Your task to perform on an android device: Clear all items from cart on amazon.com. Search for bose soundsport free on amazon.com, select the first entry, add it to the cart, then select checkout. Image 0: 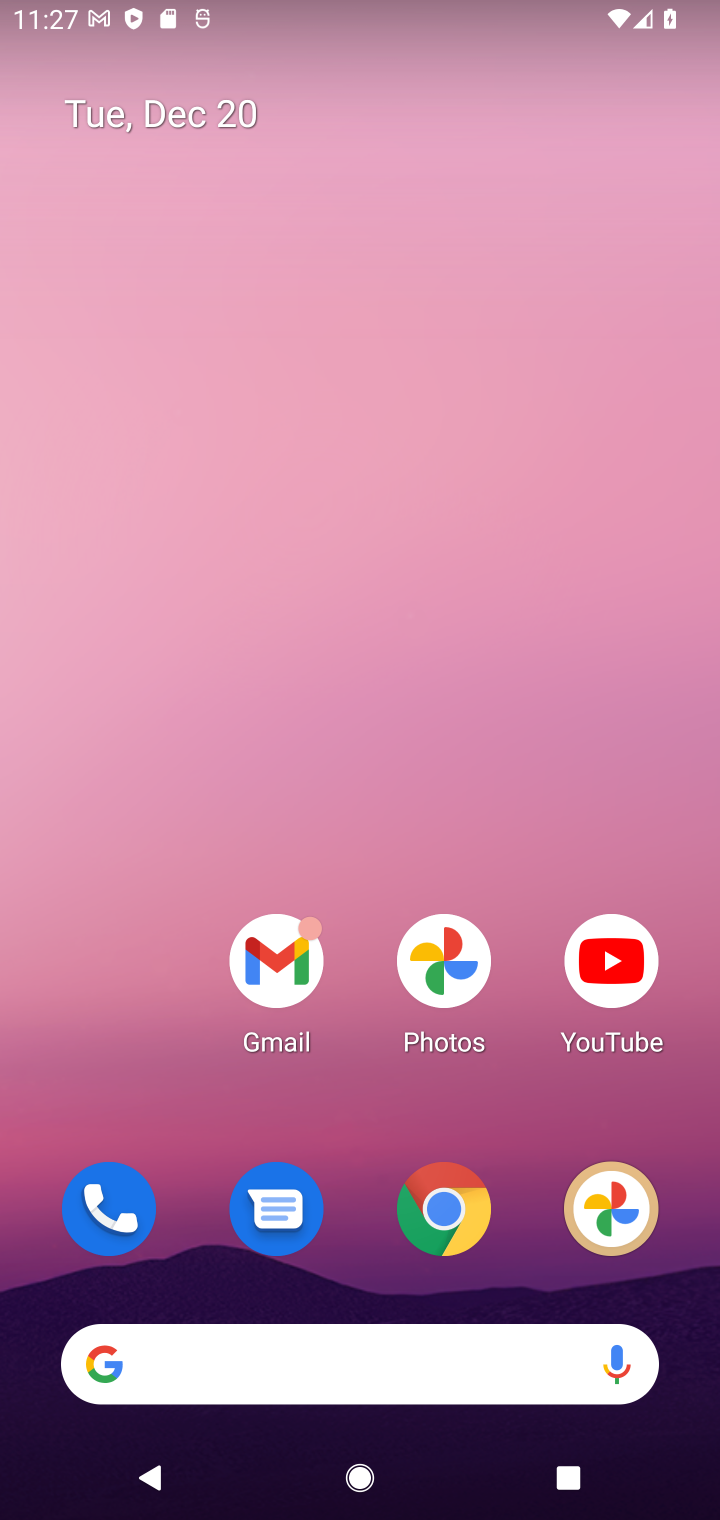
Step 0: click (439, 1201)
Your task to perform on an android device: Clear all items from cart on amazon.com. Search for bose soundsport free on amazon.com, select the first entry, add it to the cart, then select checkout. Image 1: 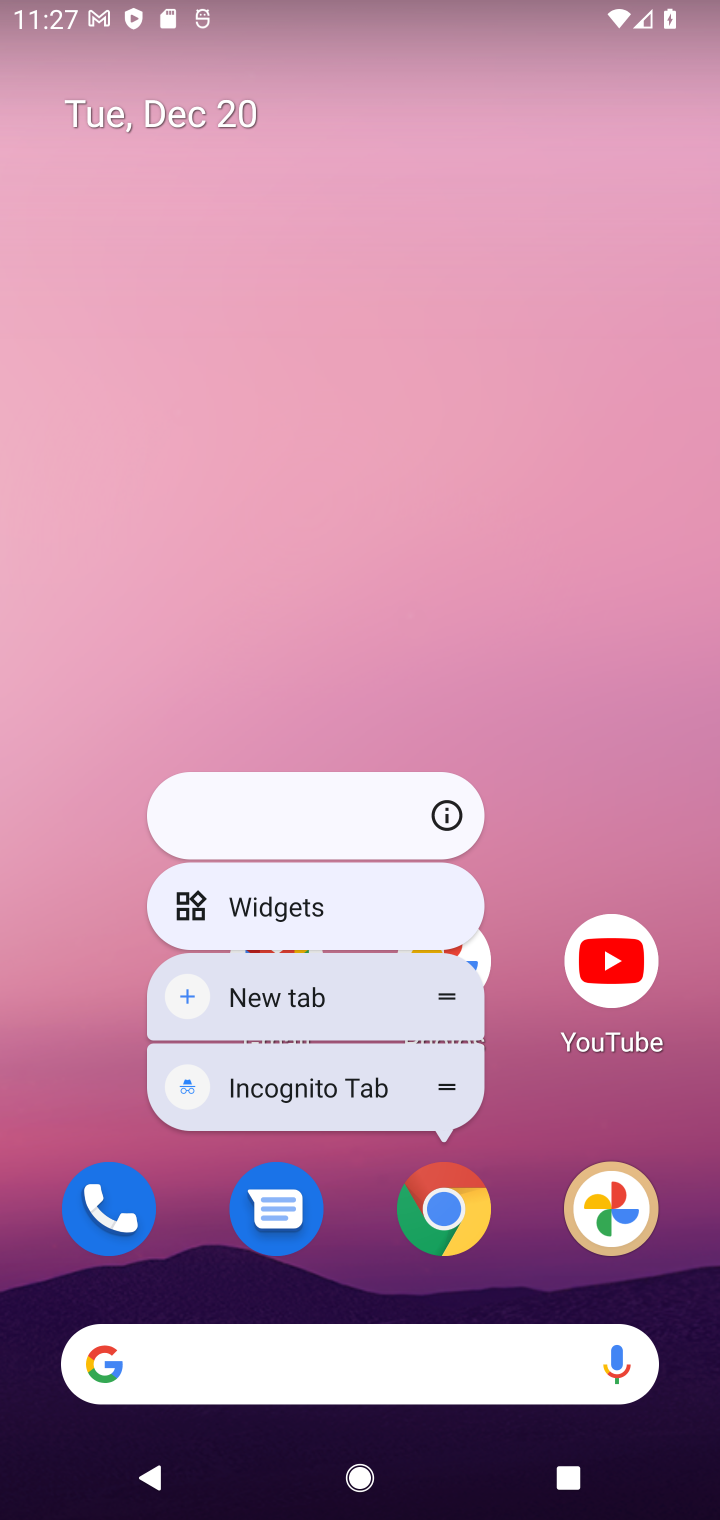
Step 1: click (456, 1226)
Your task to perform on an android device: Clear all items from cart on amazon.com. Search for bose soundsport free on amazon.com, select the first entry, add it to the cart, then select checkout. Image 2: 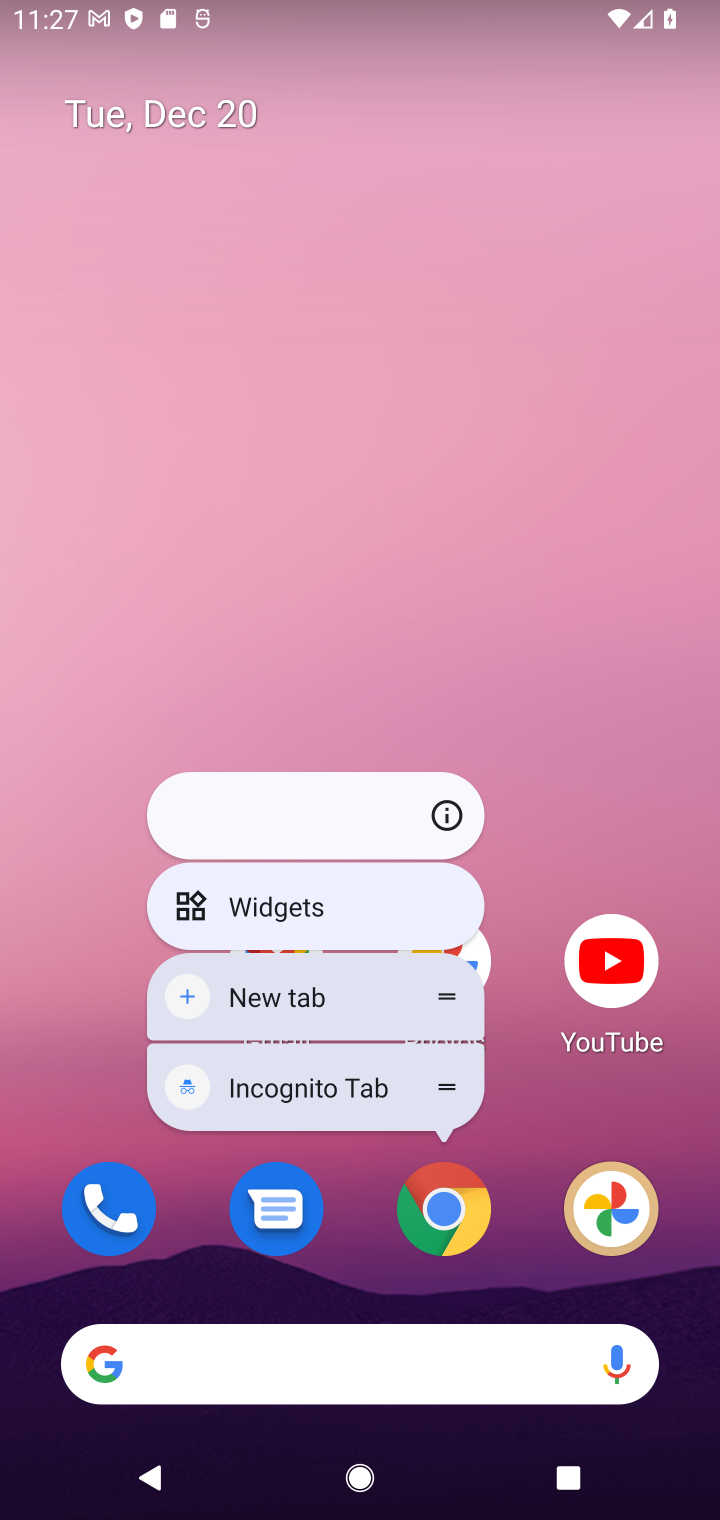
Step 2: click (456, 1226)
Your task to perform on an android device: Clear all items from cart on amazon.com. Search for bose soundsport free on amazon.com, select the first entry, add it to the cart, then select checkout. Image 3: 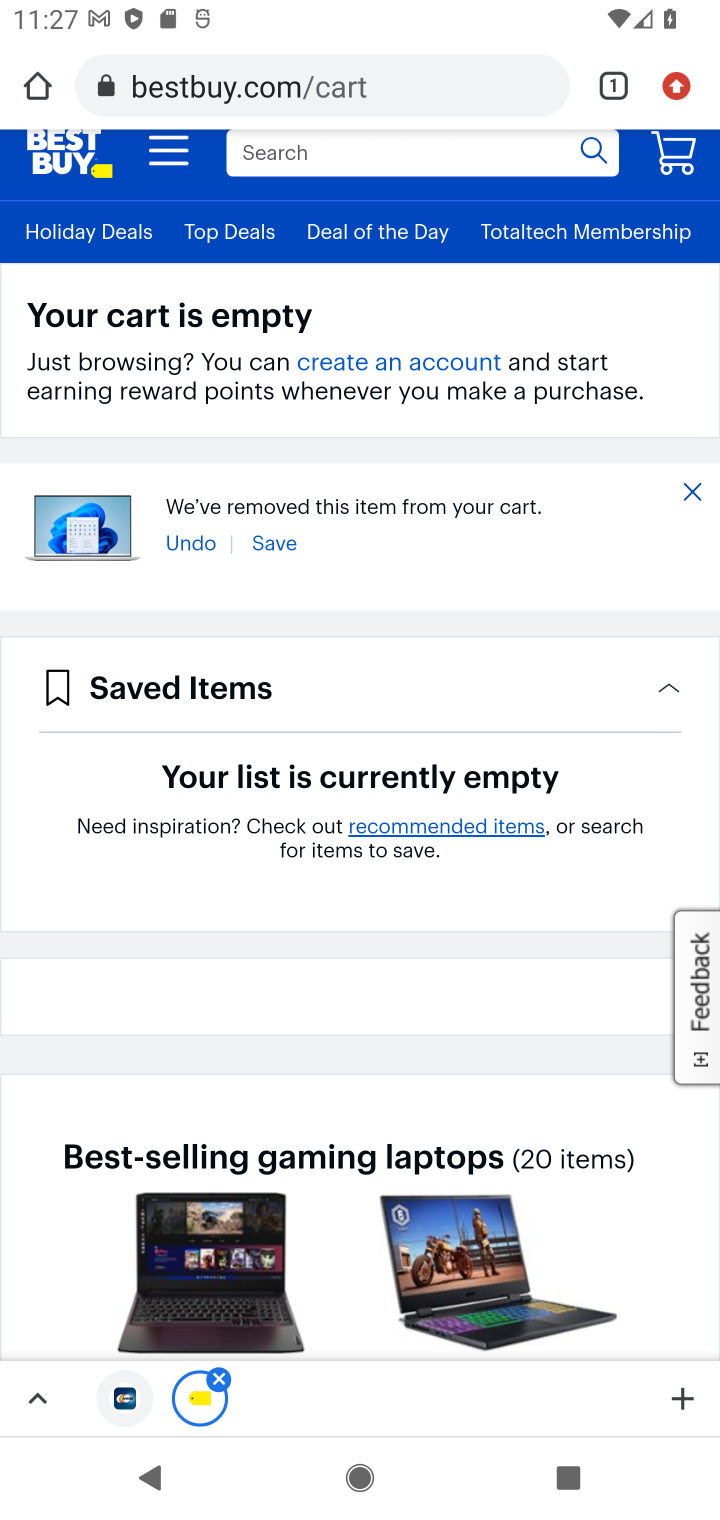
Step 3: click (242, 82)
Your task to perform on an android device: Clear all items from cart on amazon.com. Search for bose soundsport free on amazon.com, select the first entry, add it to the cart, then select checkout. Image 4: 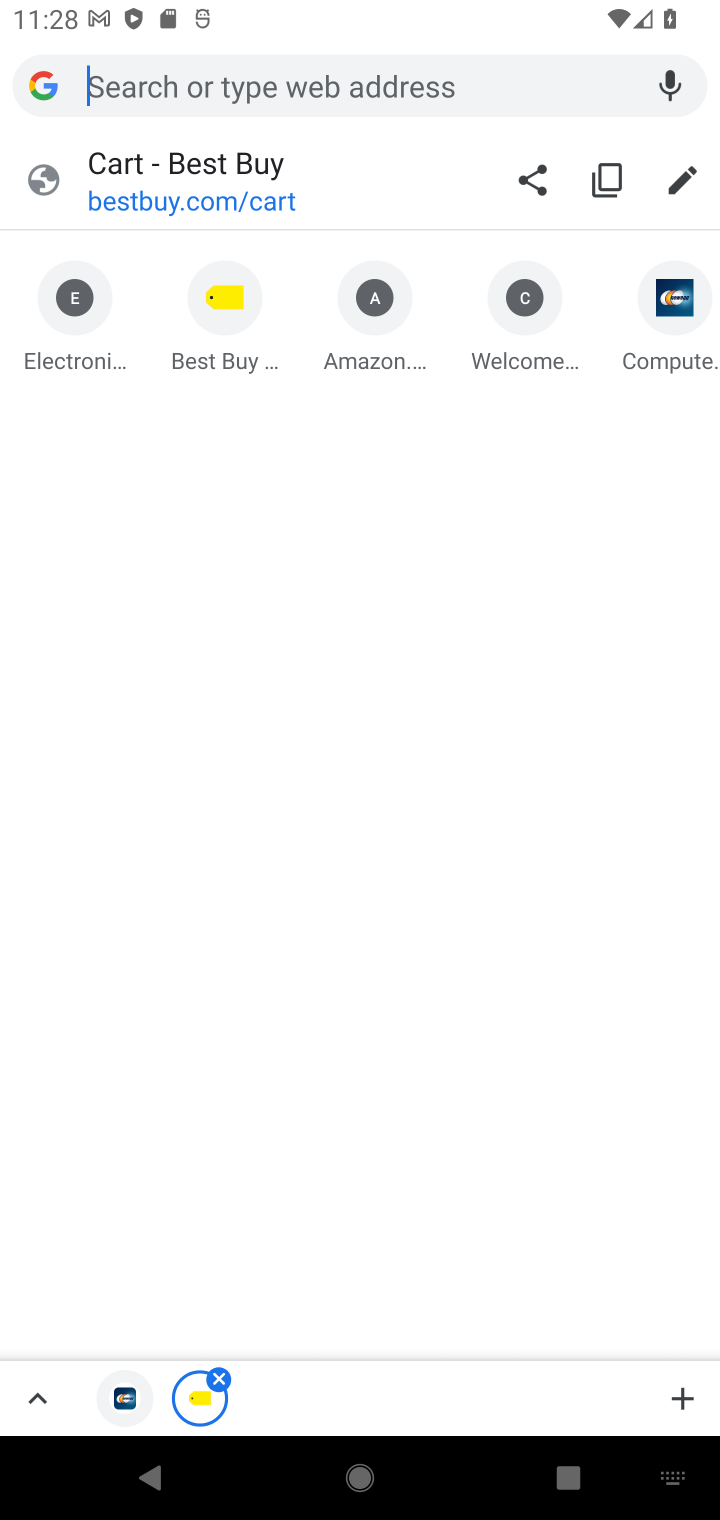
Step 4: click (367, 355)
Your task to perform on an android device: Clear all items from cart on amazon.com. Search for bose soundsport free on amazon.com, select the first entry, add it to the cart, then select checkout. Image 5: 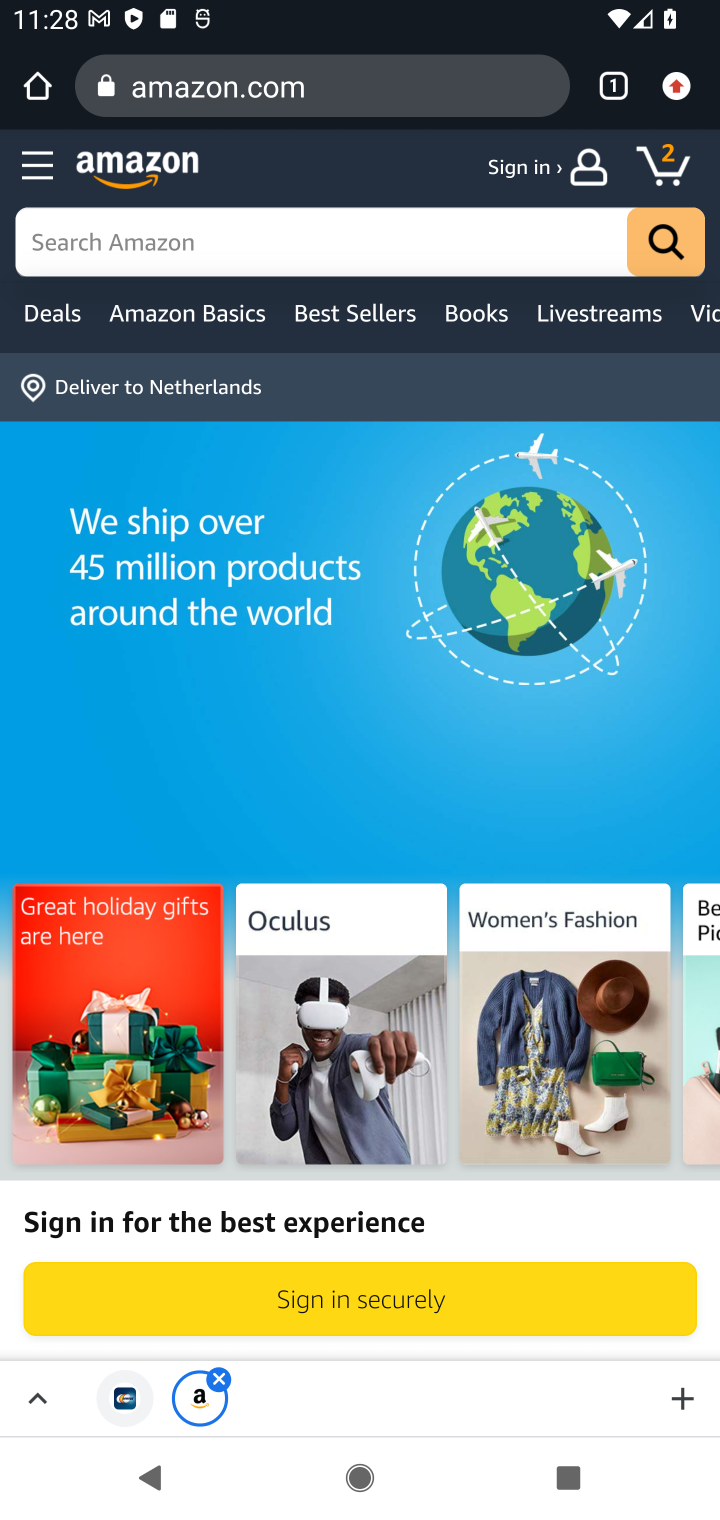
Step 5: click (664, 170)
Your task to perform on an android device: Clear all items from cart on amazon.com. Search for bose soundsport free on amazon.com, select the first entry, add it to the cart, then select checkout. Image 6: 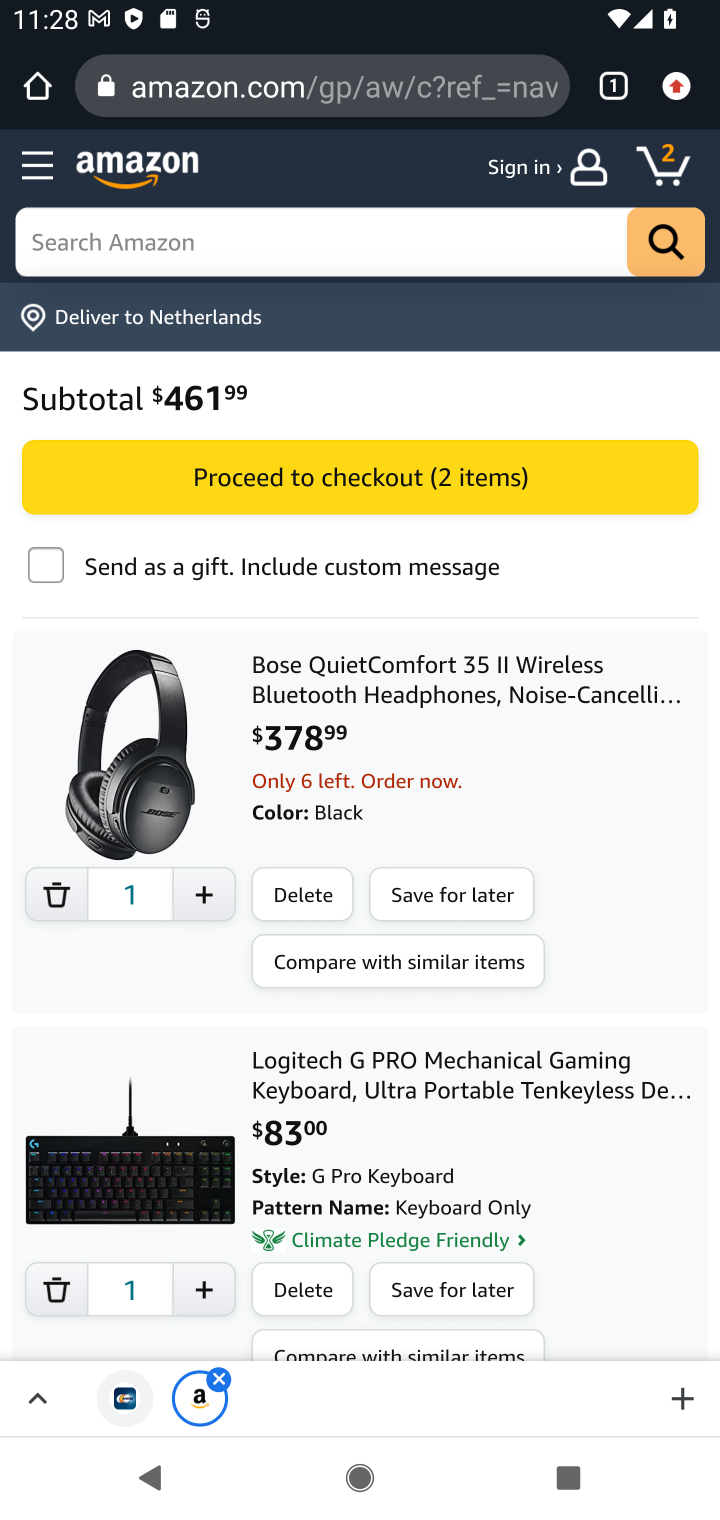
Step 6: click (291, 884)
Your task to perform on an android device: Clear all items from cart on amazon.com. Search for bose soundsport free on amazon.com, select the first entry, add it to the cart, then select checkout. Image 7: 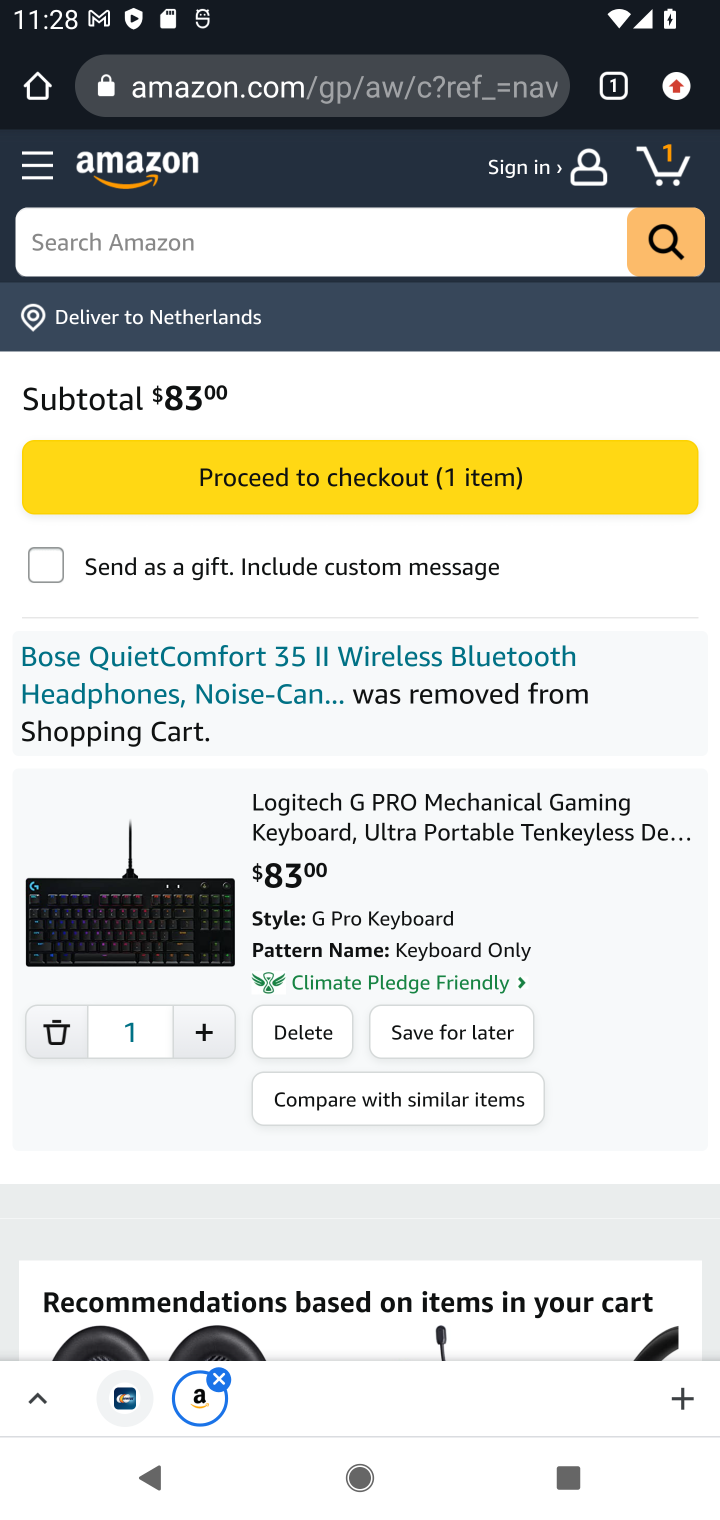
Step 7: click (302, 1032)
Your task to perform on an android device: Clear all items from cart on amazon.com. Search for bose soundsport free on amazon.com, select the first entry, add it to the cart, then select checkout. Image 8: 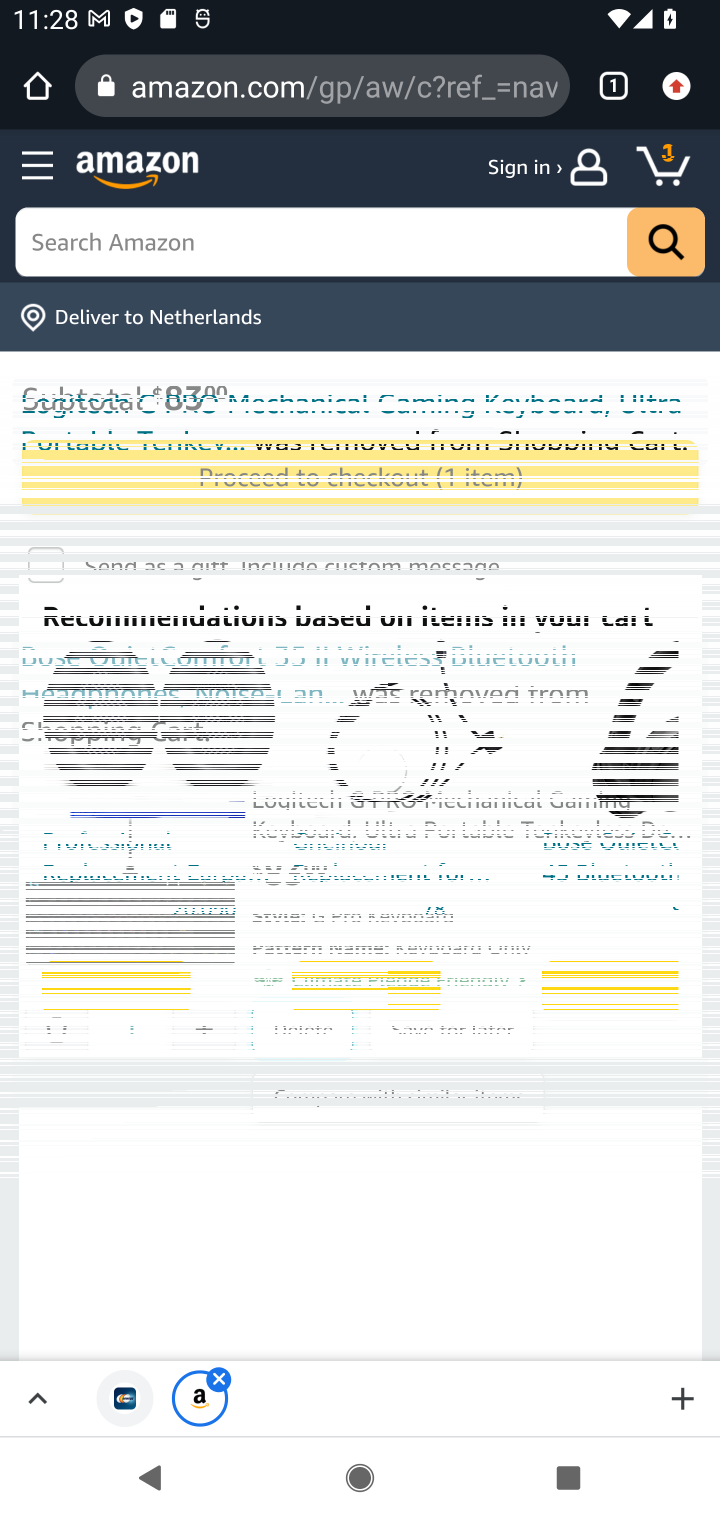
Step 8: click (112, 244)
Your task to perform on an android device: Clear all items from cart on amazon.com. Search for bose soundsport free on amazon.com, select the first entry, add it to the cart, then select checkout. Image 9: 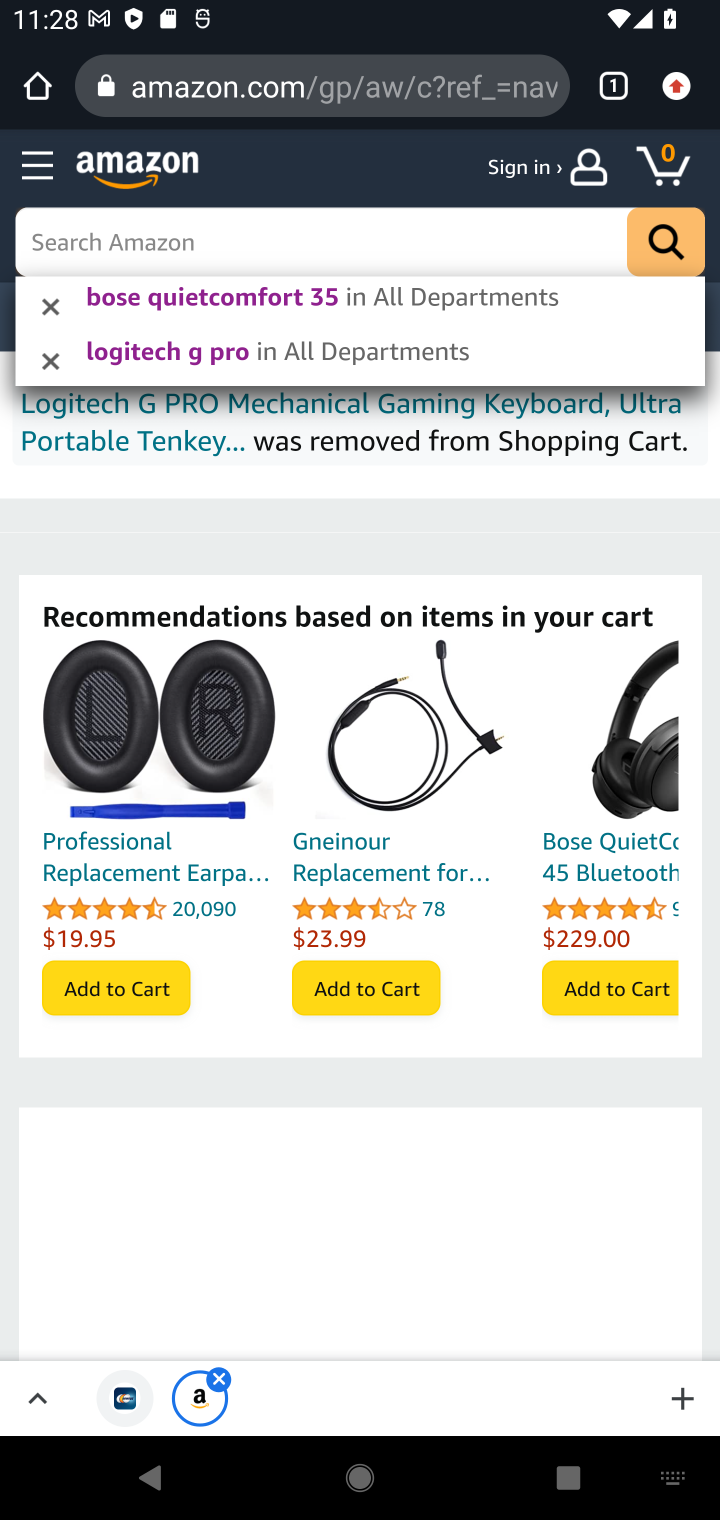
Step 9: type " bose soundsport free"
Your task to perform on an android device: Clear all items from cart on amazon.com. Search for bose soundsport free on amazon.com, select the first entry, add it to the cart, then select checkout. Image 10: 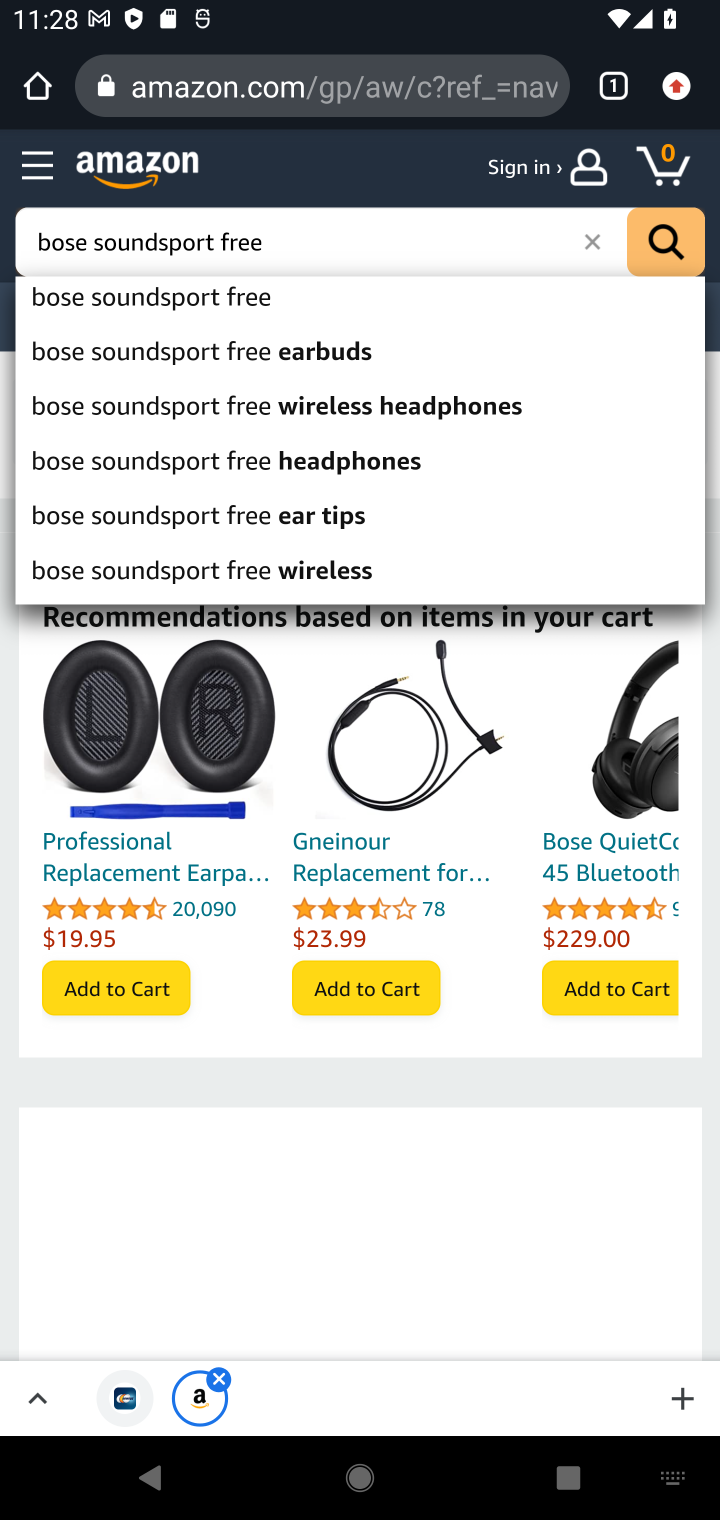
Step 10: click (95, 304)
Your task to perform on an android device: Clear all items from cart on amazon.com. Search for bose soundsport free on amazon.com, select the first entry, add it to the cart, then select checkout. Image 11: 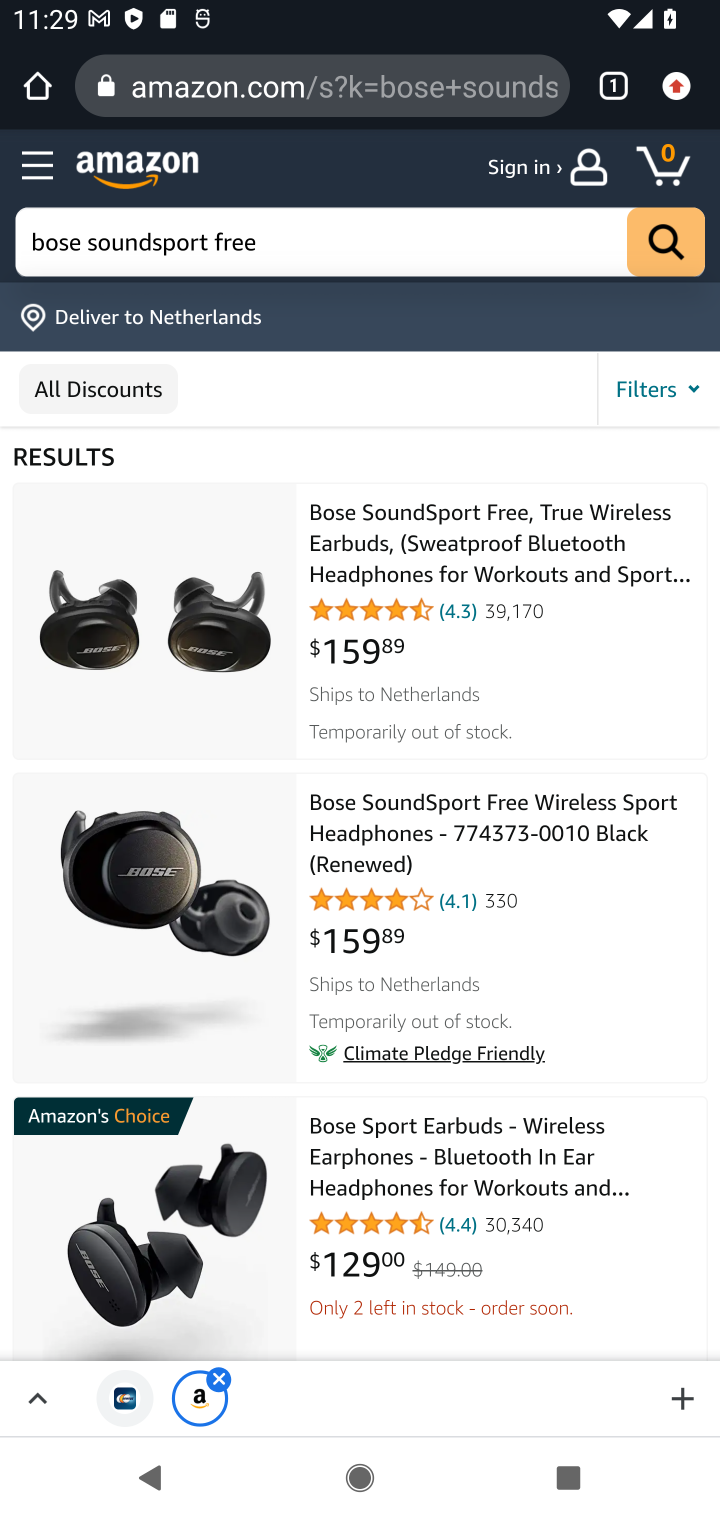
Step 11: click (396, 534)
Your task to perform on an android device: Clear all items from cart on amazon.com. Search for bose soundsport free on amazon.com, select the first entry, add it to the cart, then select checkout. Image 12: 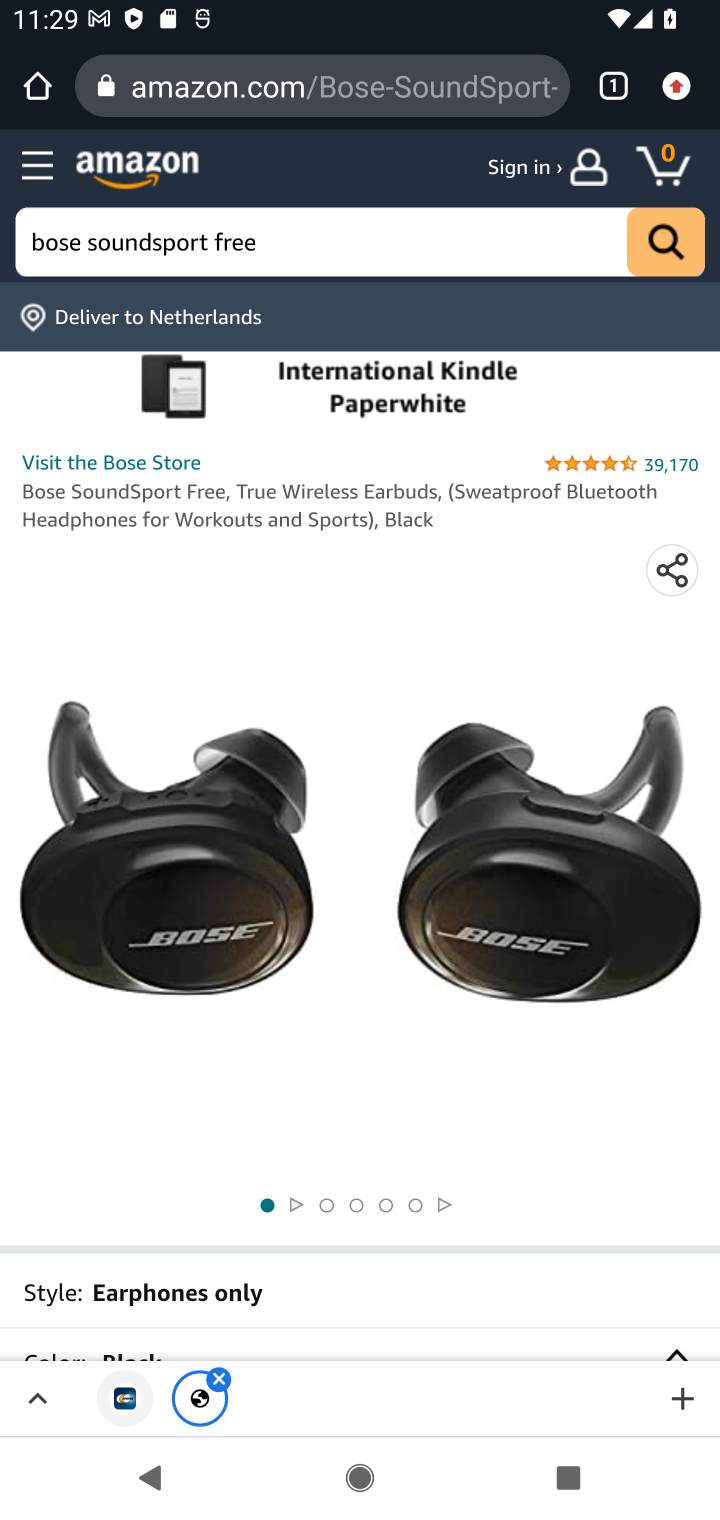
Step 12: drag from (348, 1158) to (308, 640)
Your task to perform on an android device: Clear all items from cart on amazon.com. Search for bose soundsport free on amazon.com, select the first entry, add it to the cart, then select checkout. Image 13: 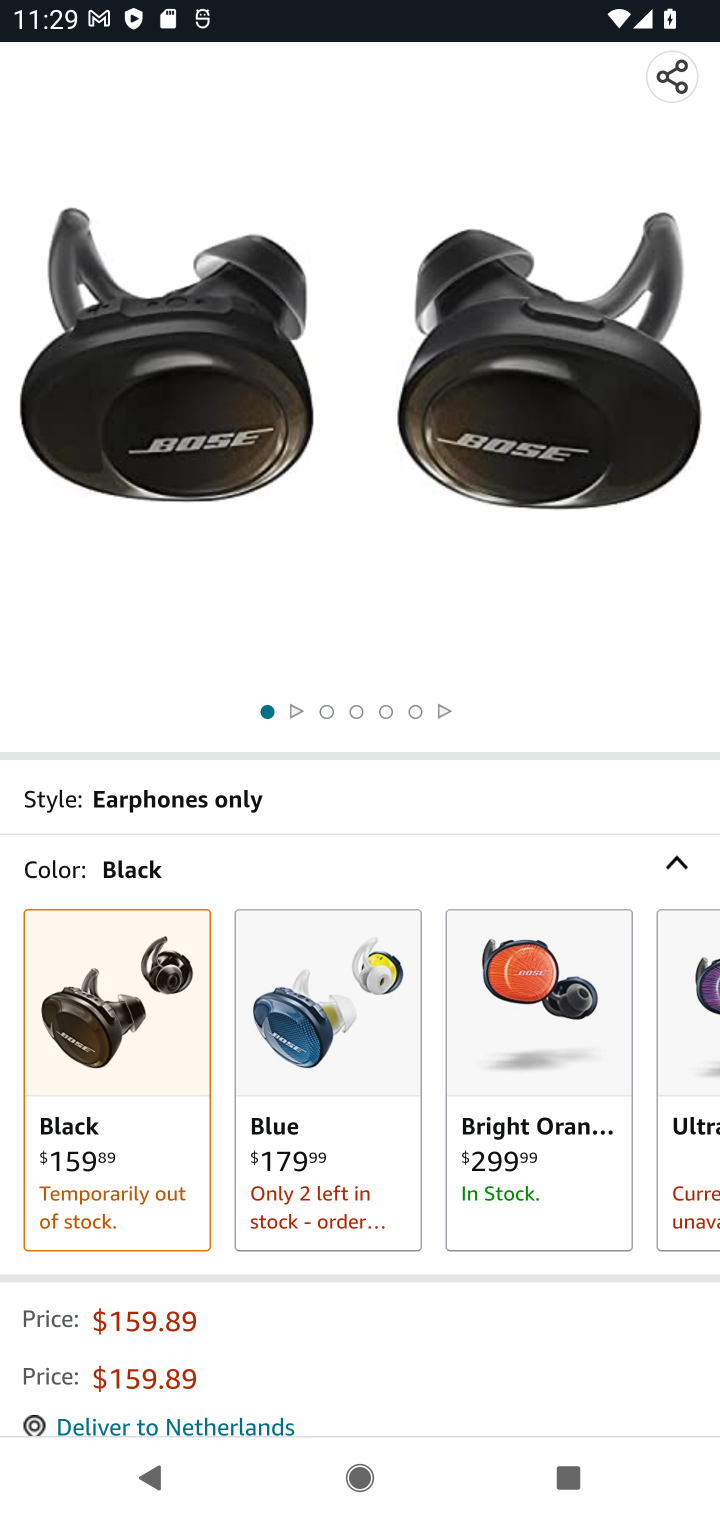
Step 13: drag from (377, 1141) to (336, 724)
Your task to perform on an android device: Clear all items from cart on amazon.com. Search for bose soundsport free on amazon.com, select the first entry, add it to the cart, then select checkout. Image 14: 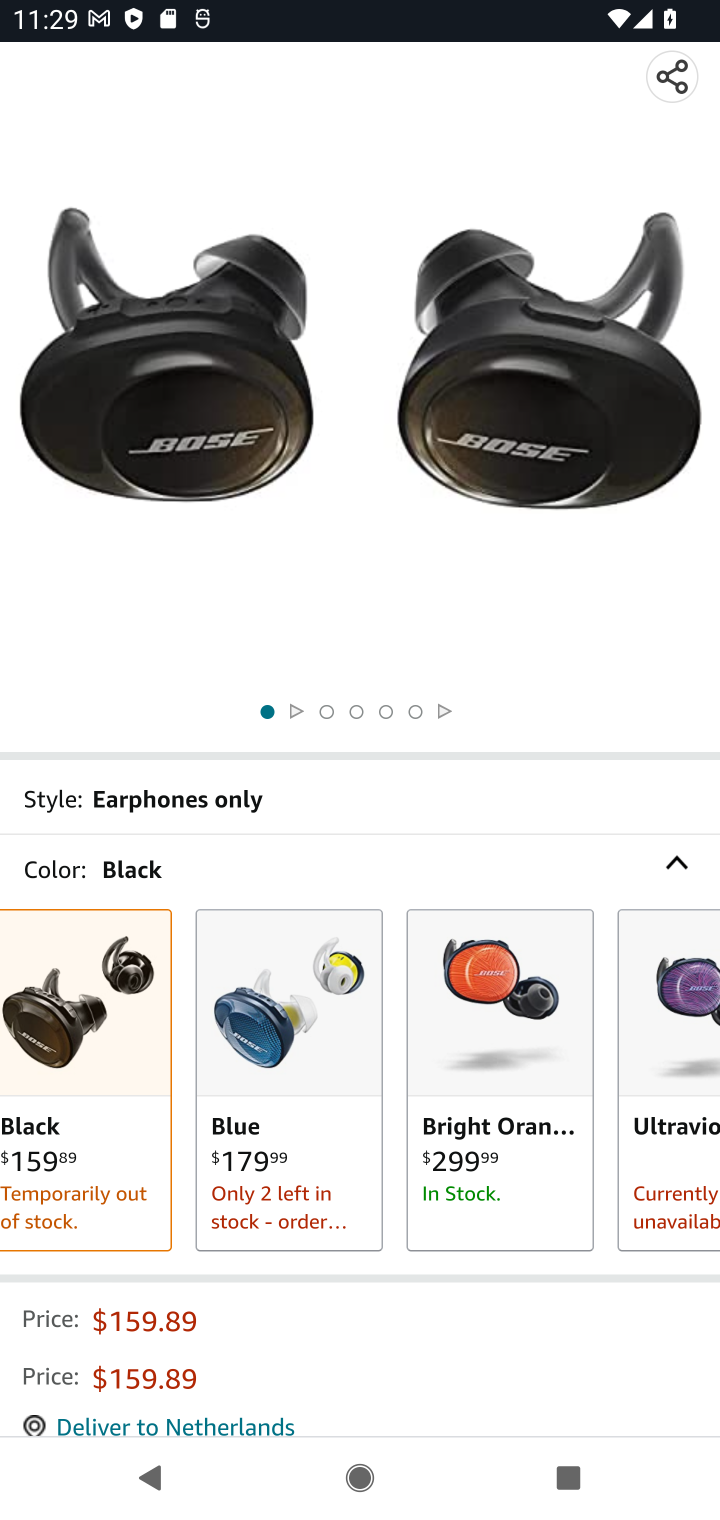
Step 14: drag from (547, 1245) to (595, 663)
Your task to perform on an android device: Clear all items from cart on amazon.com. Search for bose soundsport free on amazon.com, select the first entry, add it to the cart, then select checkout. Image 15: 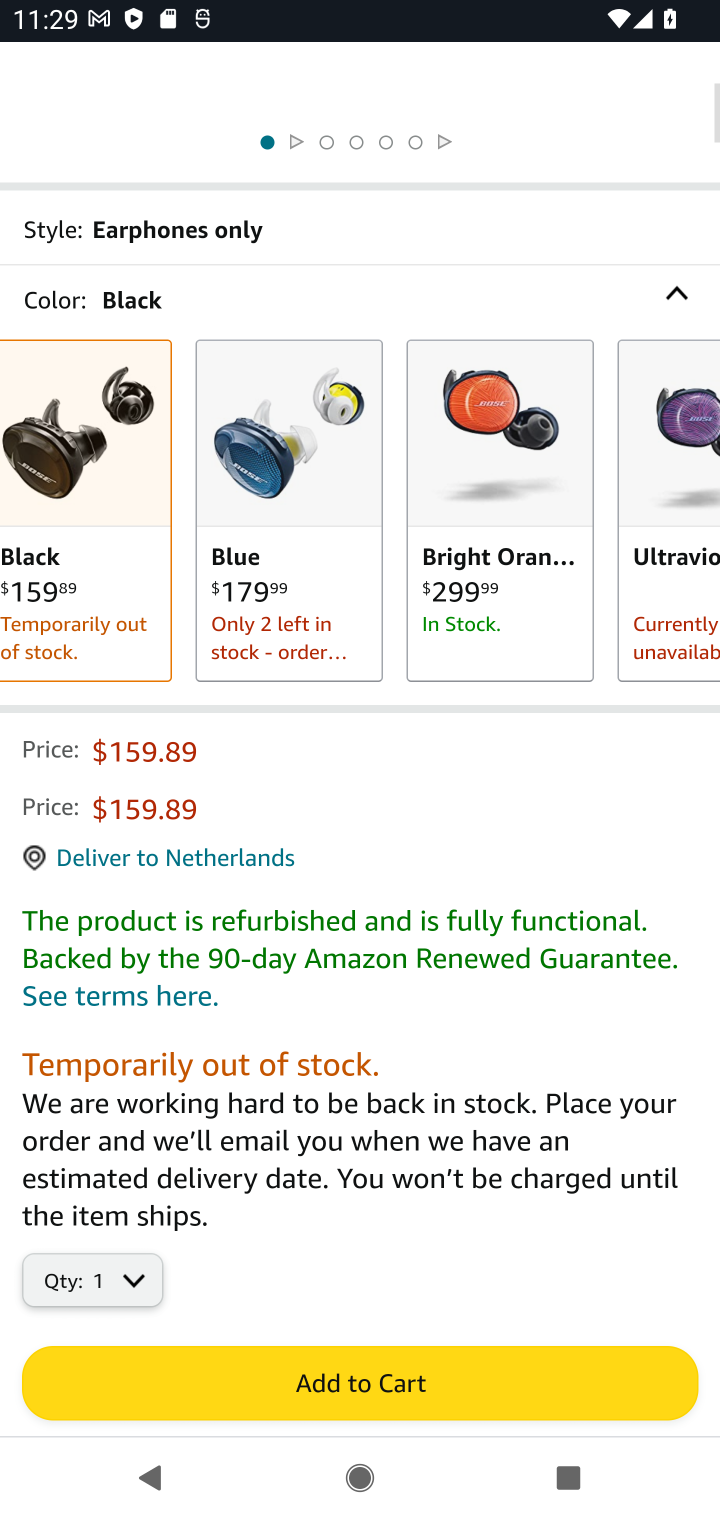
Step 15: click (336, 1372)
Your task to perform on an android device: Clear all items from cart on amazon.com. Search for bose soundsport free on amazon.com, select the first entry, add it to the cart, then select checkout. Image 16: 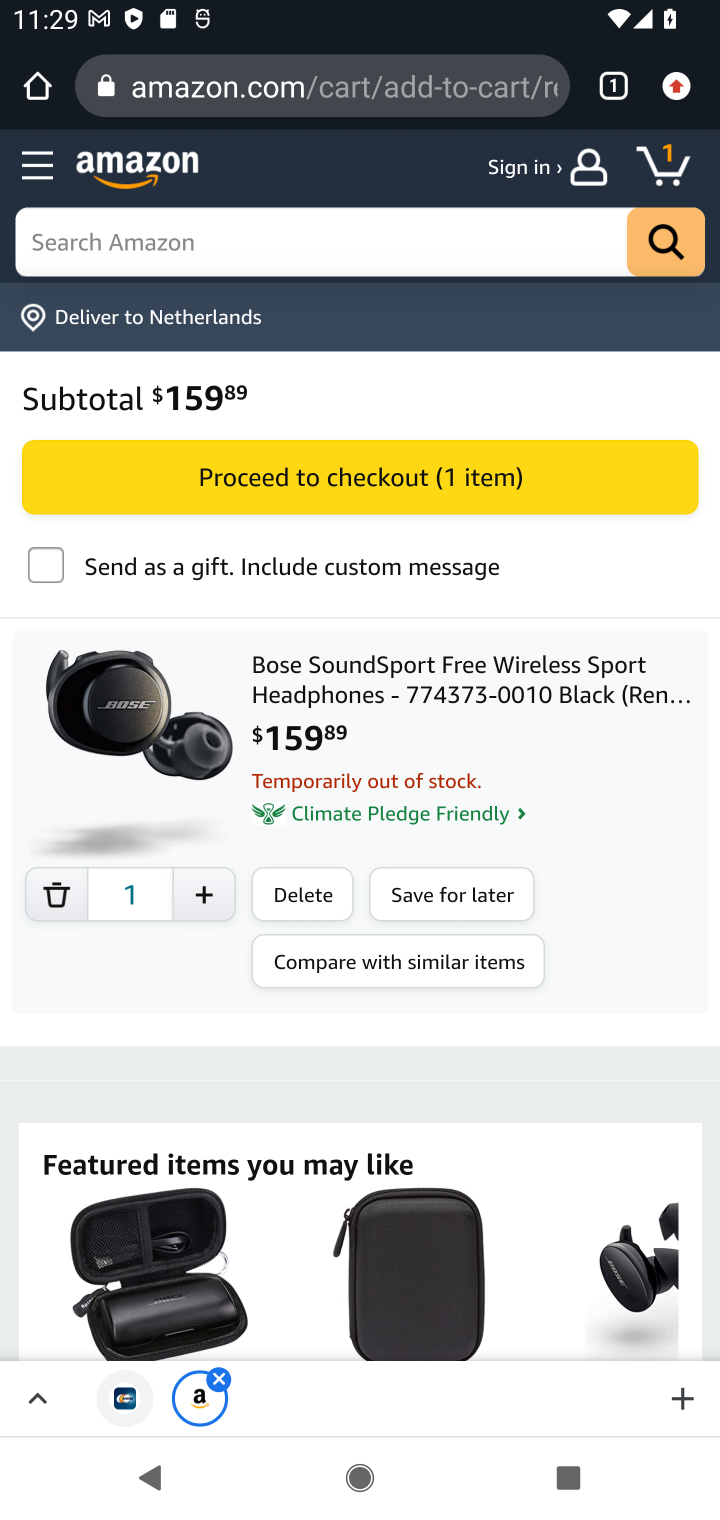
Step 16: click (343, 486)
Your task to perform on an android device: Clear all items from cart on amazon.com. Search for bose soundsport free on amazon.com, select the first entry, add it to the cart, then select checkout. Image 17: 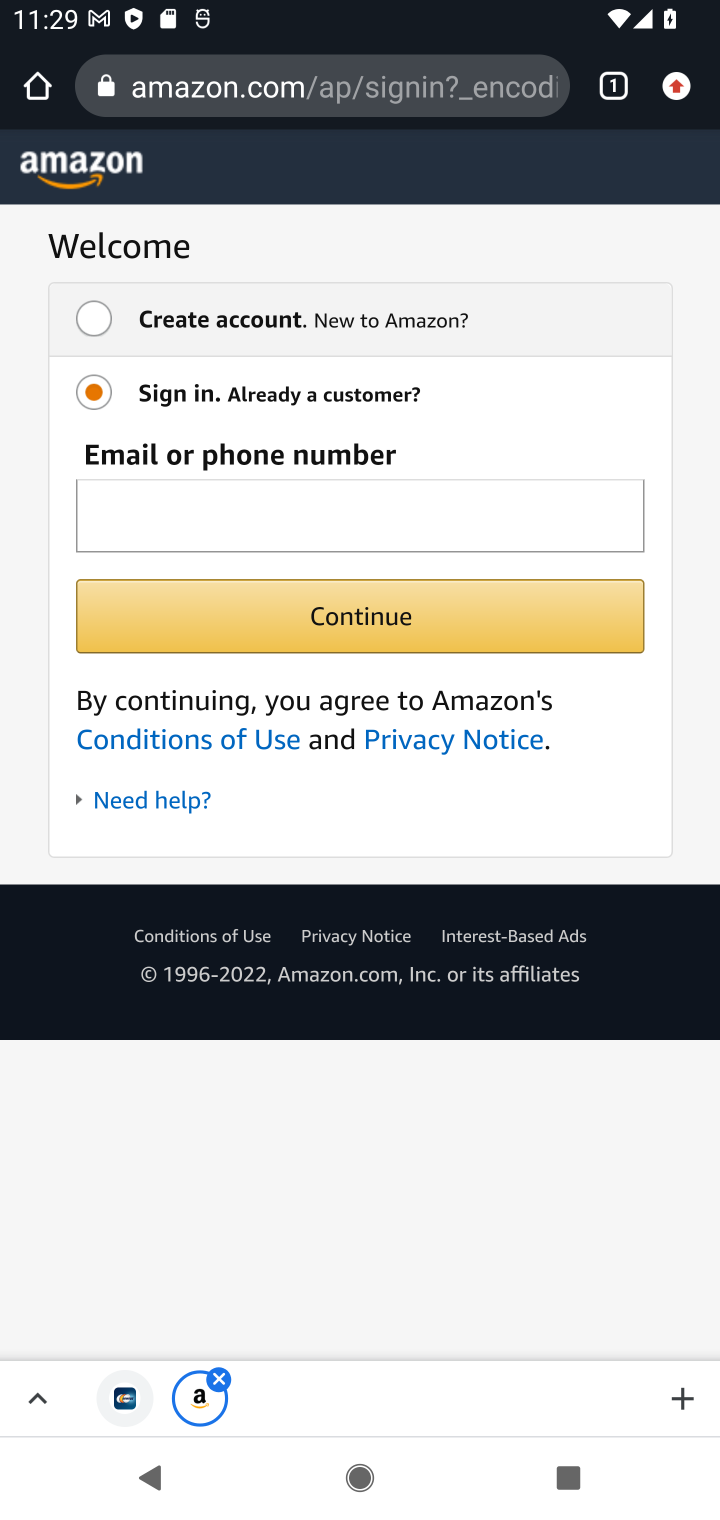
Step 17: task complete